Your task to perform on an android device: Search for usb-a to usb-b on bestbuy.com, select the first entry, add it to the cart, then select checkout. Image 0: 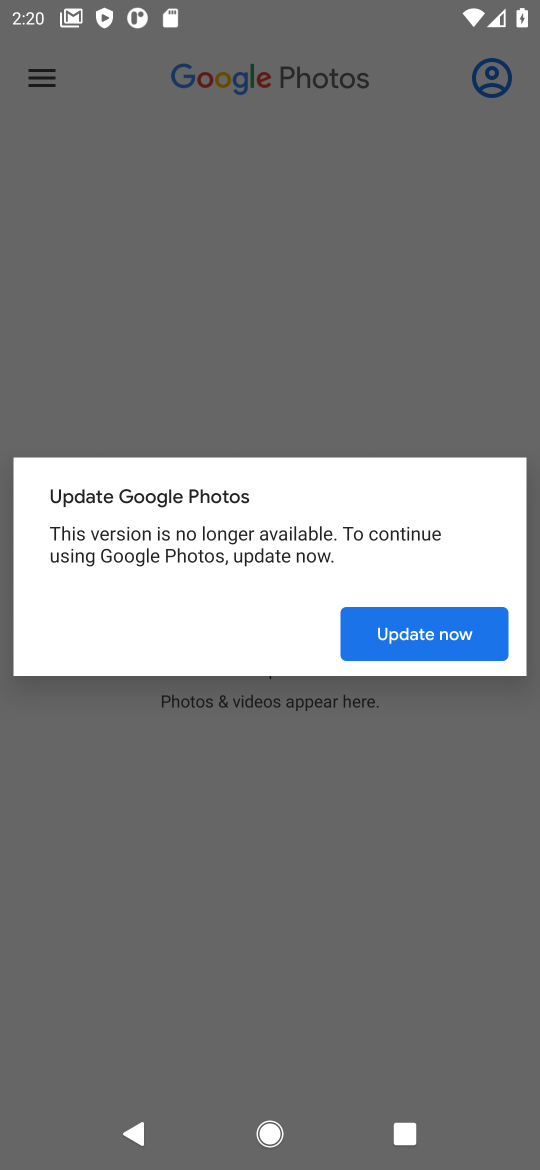
Step 0: press home button
Your task to perform on an android device: Search for usb-a to usb-b on bestbuy.com, select the first entry, add it to the cart, then select checkout. Image 1: 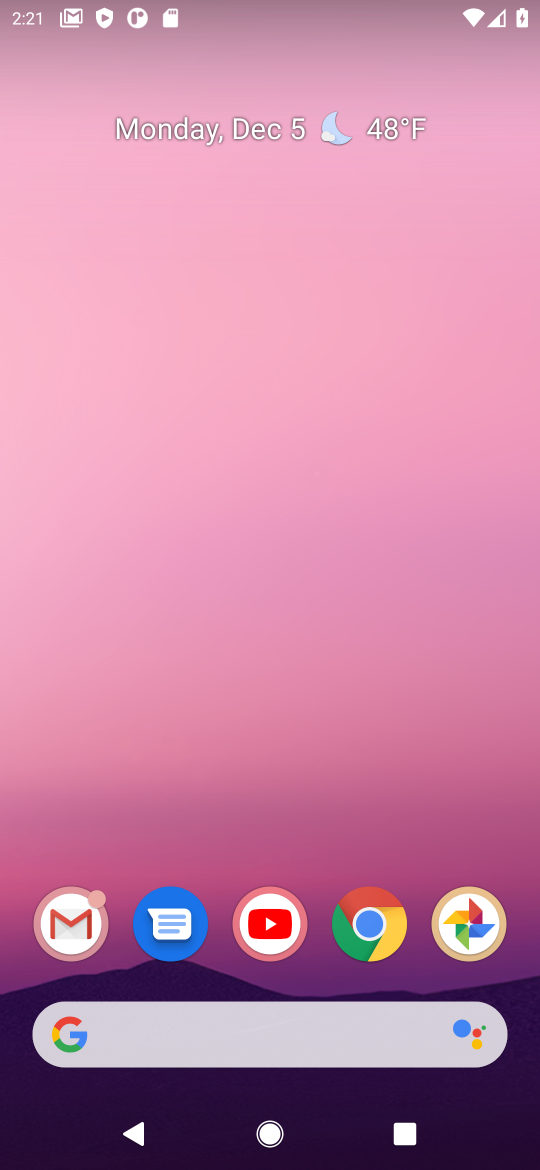
Step 1: click (164, 1046)
Your task to perform on an android device: Search for usb-a to usb-b on bestbuy.com, select the first entry, add it to the cart, then select checkout. Image 2: 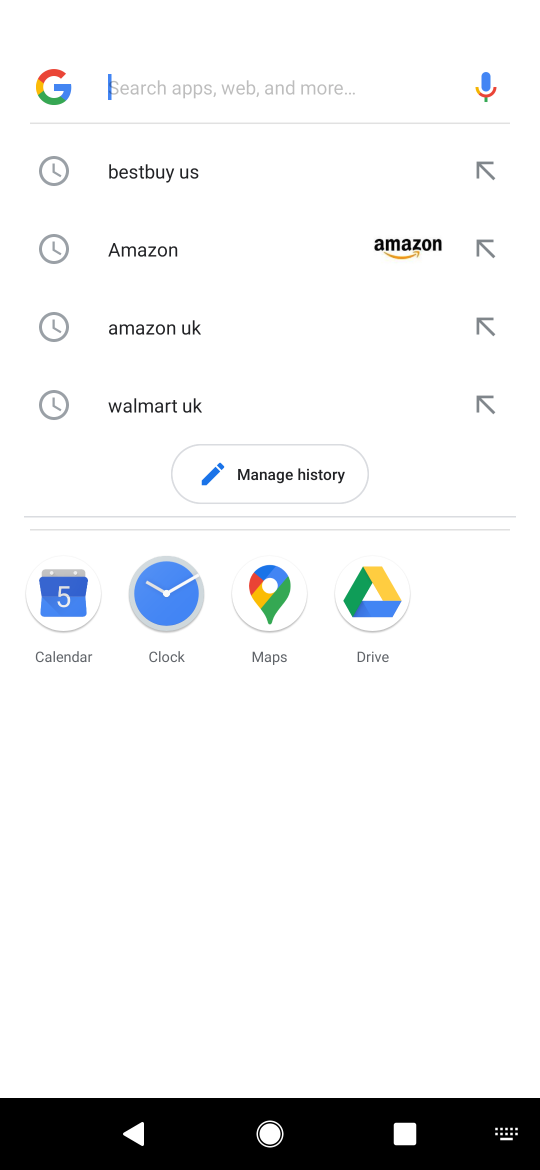
Step 2: type "best buy"
Your task to perform on an android device: Search for usb-a to usb-b on bestbuy.com, select the first entry, add it to the cart, then select checkout. Image 3: 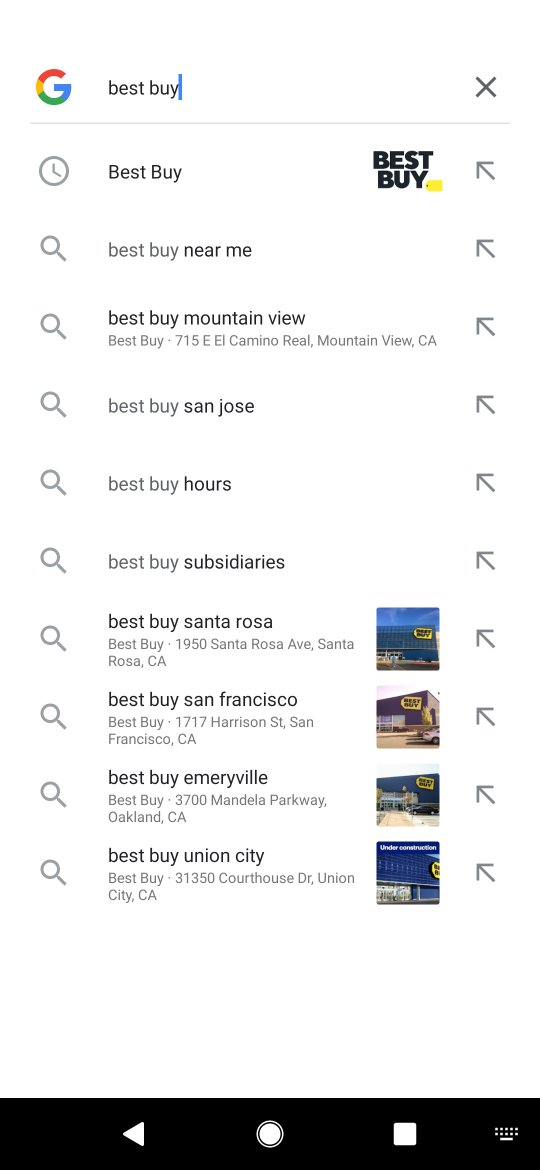
Step 3: click (182, 179)
Your task to perform on an android device: Search for usb-a to usb-b on bestbuy.com, select the first entry, add it to the cart, then select checkout. Image 4: 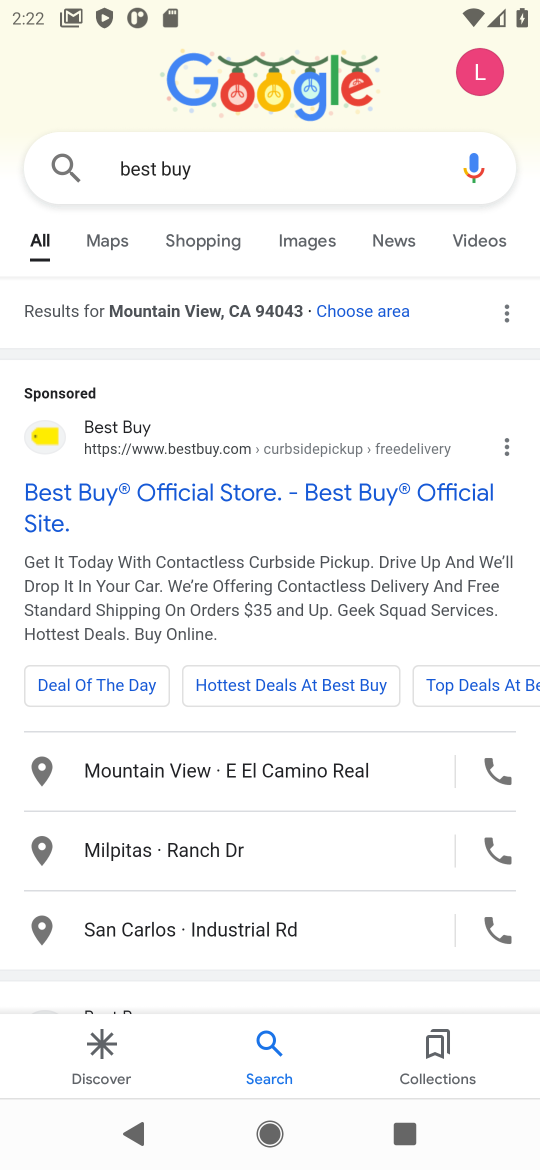
Step 4: click (134, 520)
Your task to perform on an android device: Search for usb-a to usb-b on bestbuy.com, select the first entry, add it to the cart, then select checkout. Image 5: 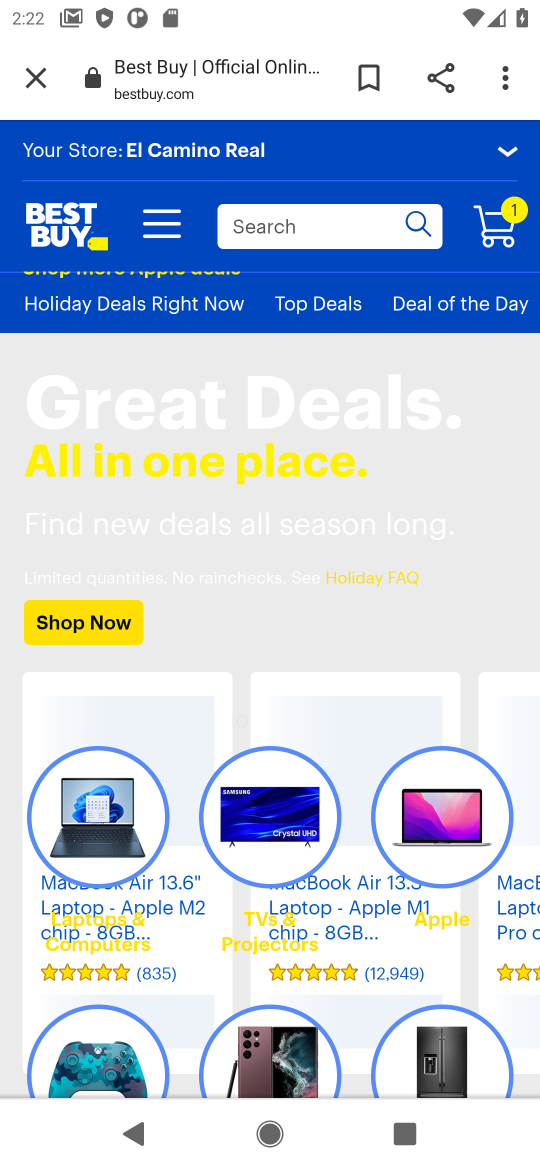
Step 5: click (285, 231)
Your task to perform on an android device: Search for usb-a to usb-b on bestbuy.com, select the first entry, add it to the cart, then select checkout. Image 6: 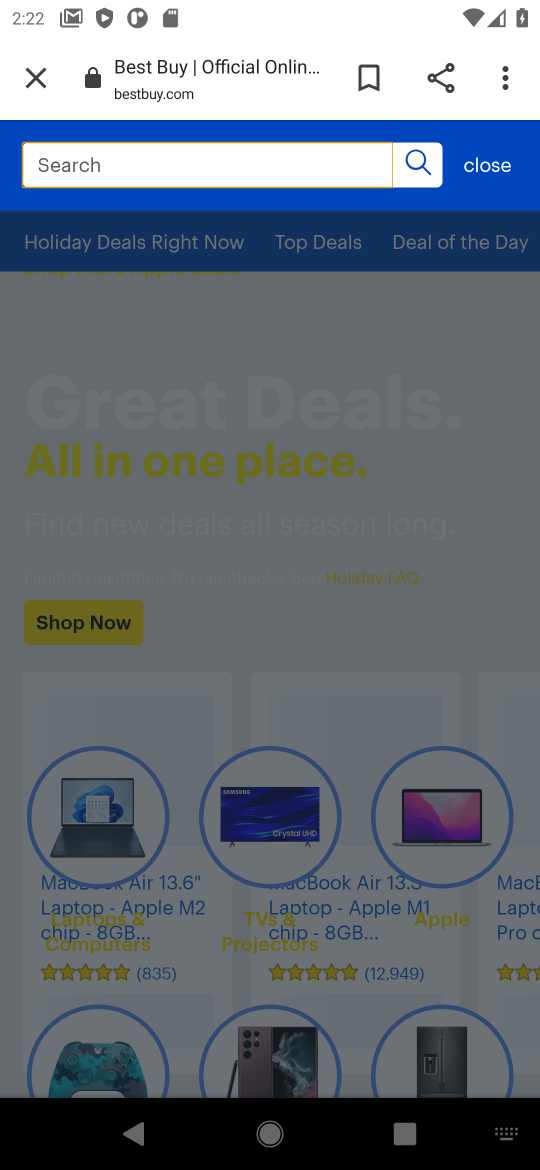
Step 6: type "usb-a to usb-c"
Your task to perform on an android device: Search for usb-a to usb-b on bestbuy.com, select the first entry, add it to the cart, then select checkout. Image 7: 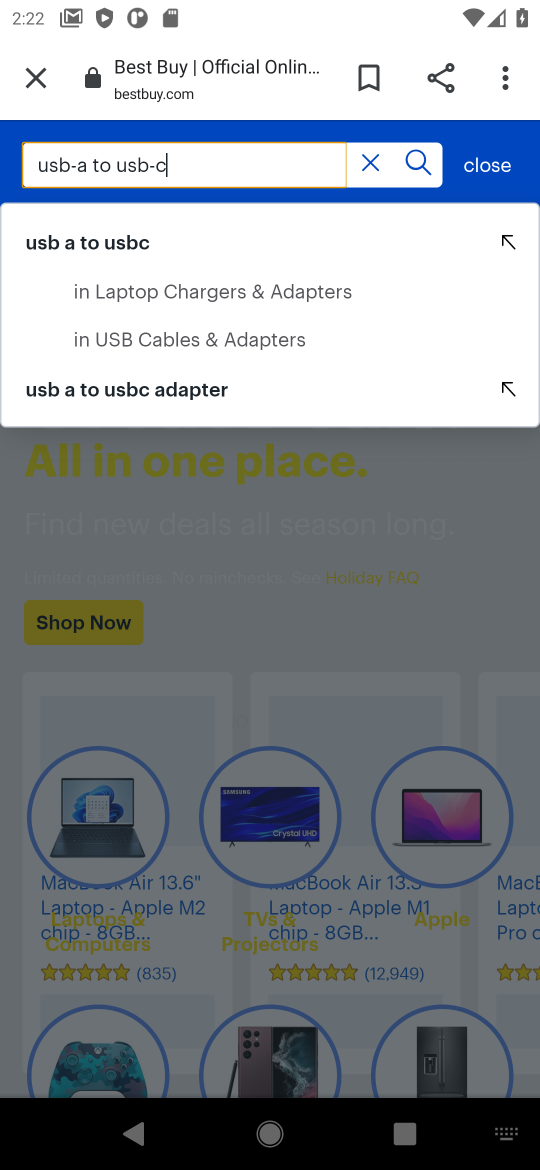
Step 7: click (99, 243)
Your task to perform on an android device: Search for usb-a to usb-b on bestbuy.com, select the first entry, add it to the cart, then select checkout. Image 8: 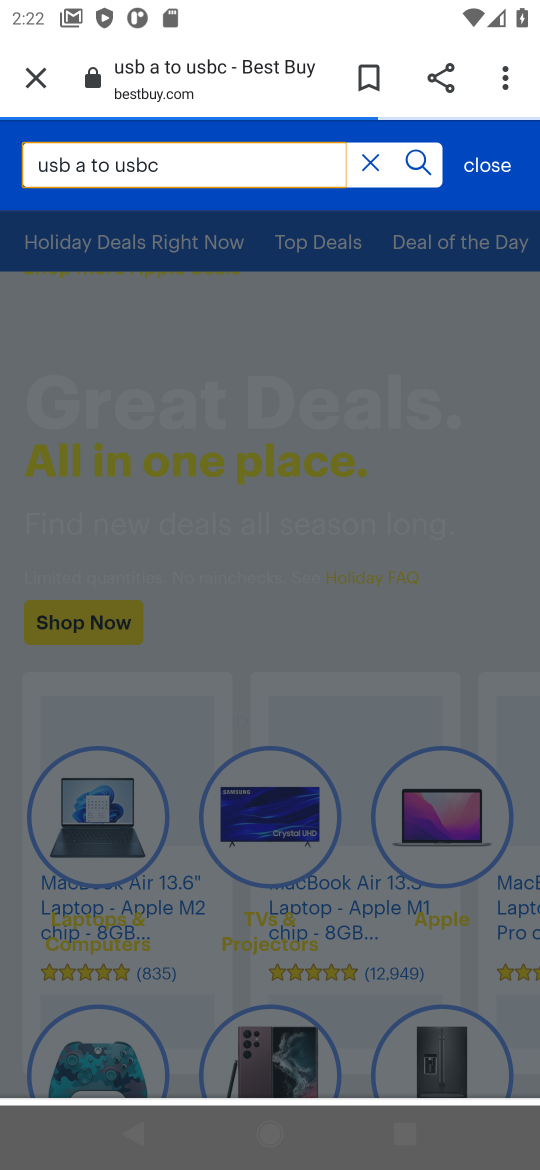
Step 8: click (412, 154)
Your task to perform on an android device: Search for usb-a to usb-b on bestbuy.com, select the first entry, add it to the cart, then select checkout. Image 9: 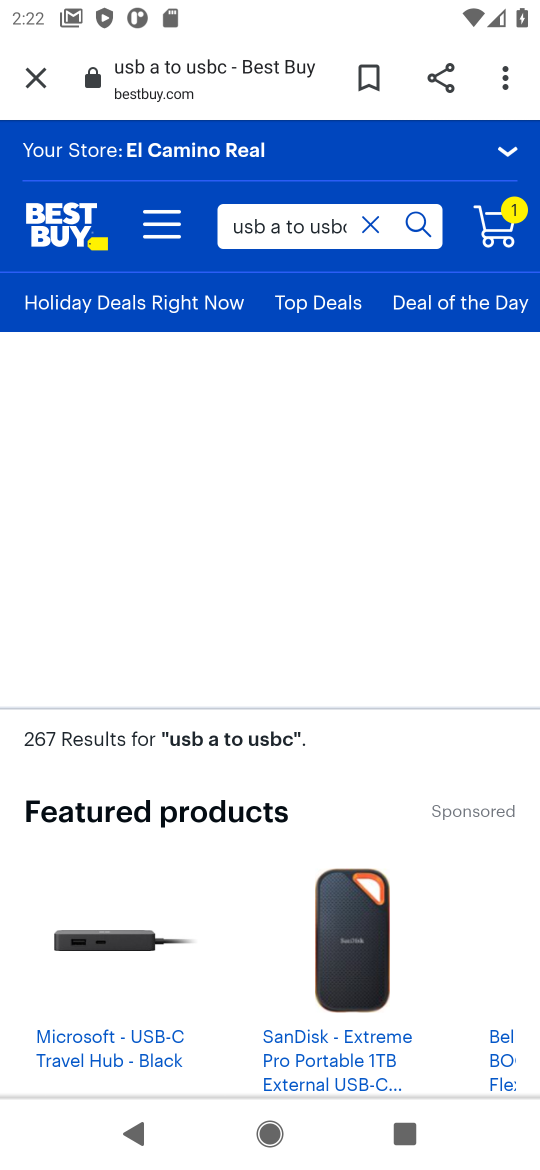
Step 9: task complete